Your task to perform on an android device: check the backup settings in the google photos Image 0: 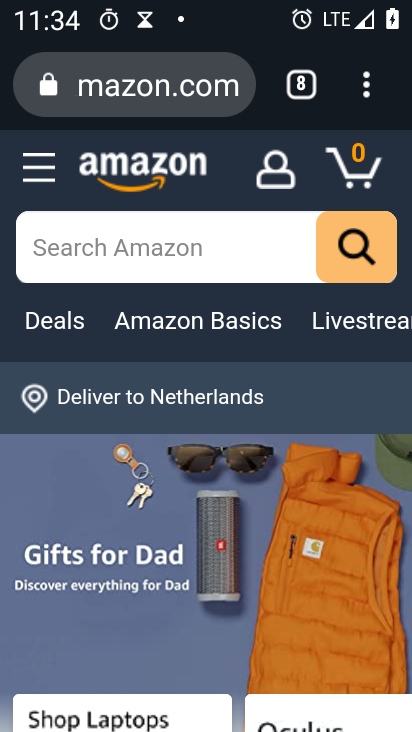
Step 0: press home button
Your task to perform on an android device: check the backup settings in the google photos Image 1: 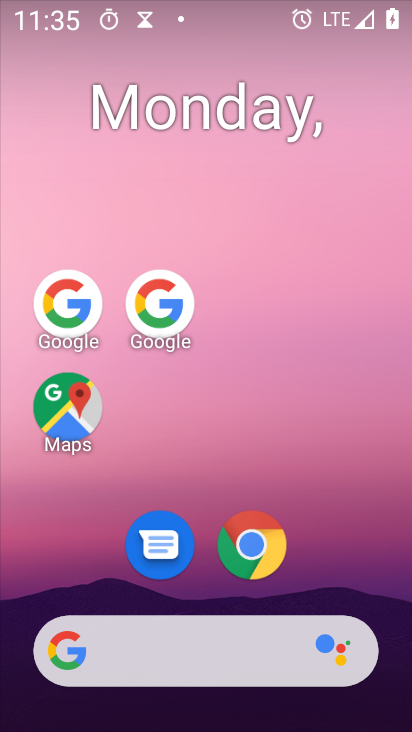
Step 1: drag from (196, 663) to (331, 27)
Your task to perform on an android device: check the backup settings in the google photos Image 2: 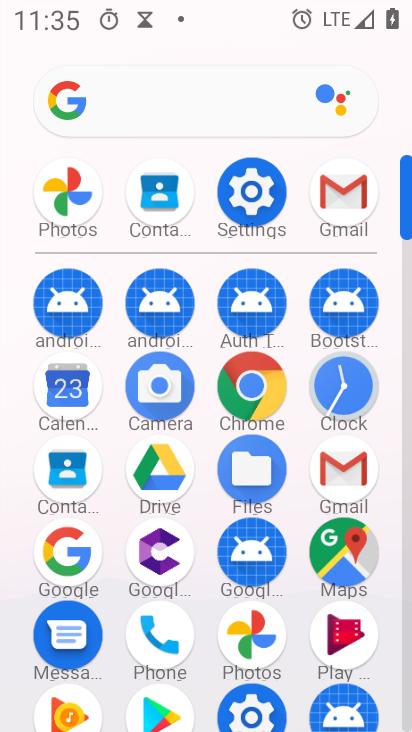
Step 2: click (241, 634)
Your task to perform on an android device: check the backup settings in the google photos Image 3: 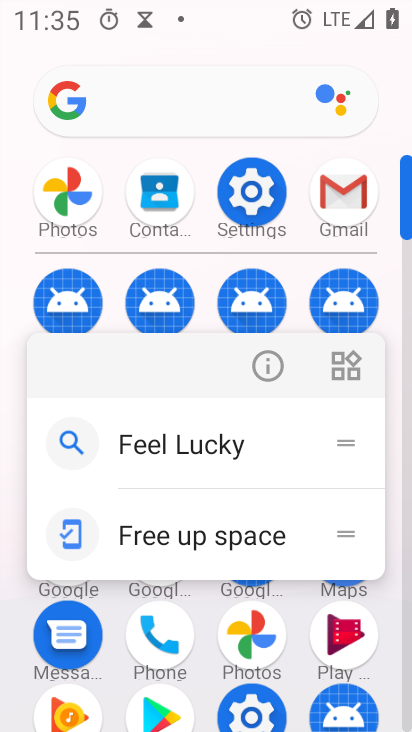
Step 3: click (249, 638)
Your task to perform on an android device: check the backup settings in the google photos Image 4: 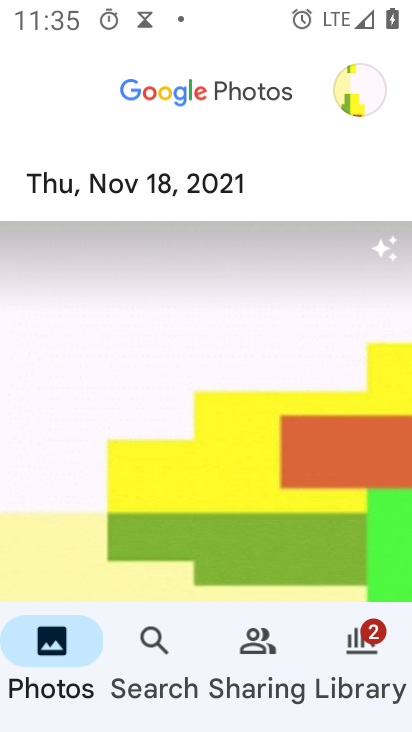
Step 4: click (359, 95)
Your task to perform on an android device: check the backup settings in the google photos Image 5: 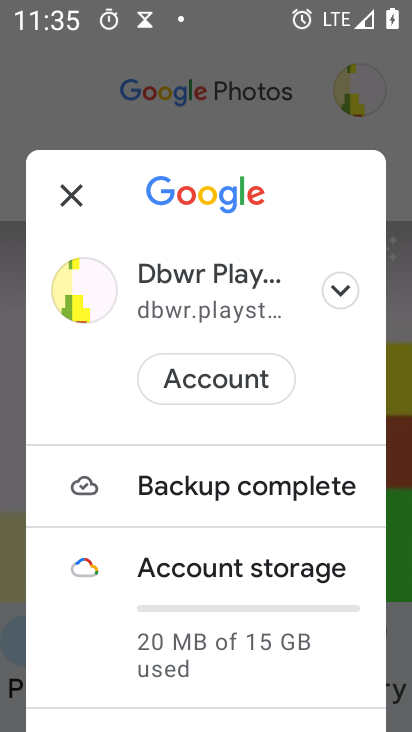
Step 5: drag from (151, 676) to (265, 307)
Your task to perform on an android device: check the backup settings in the google photos Image 6: 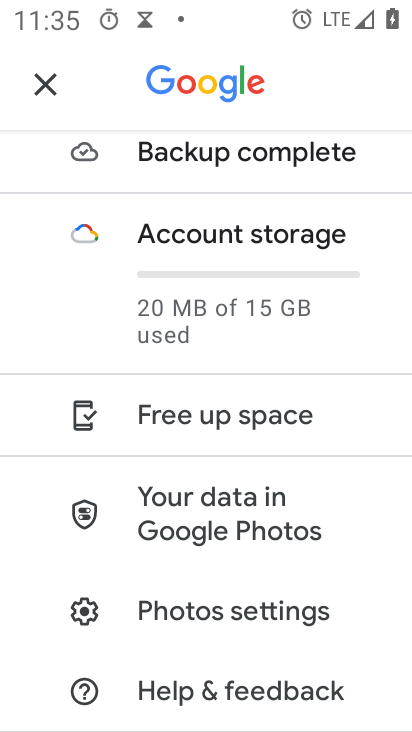
Step 6: click (224, 614)
Your task to perform on an android device: check the backup settings in the google photos Image 7: 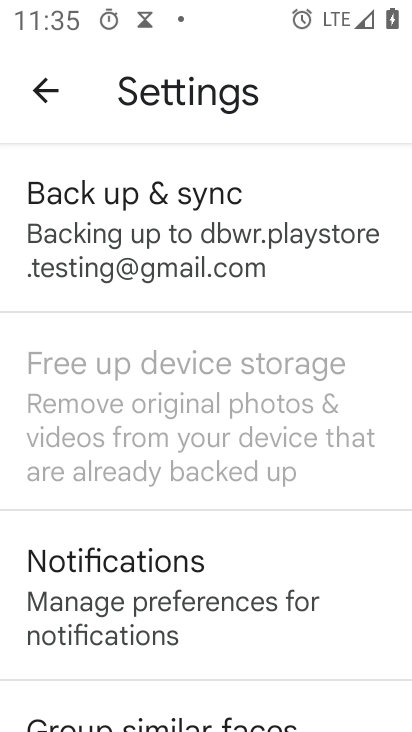
Step 7: click (191, 264)
Your task to perform on an android device: check the backup settings in the google photos Image 8: 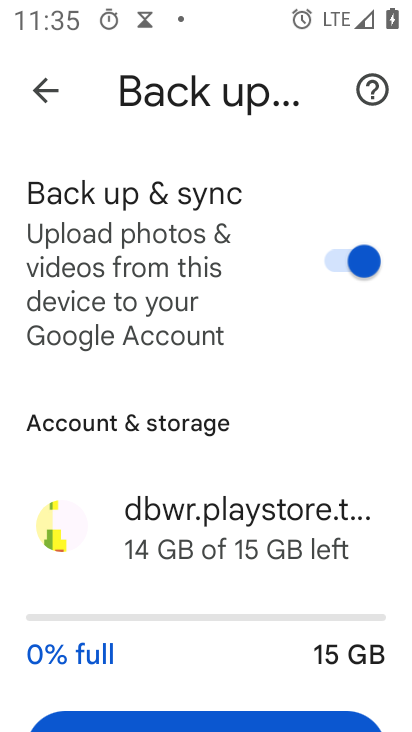
Step 8: task complete